Your task to perform on an android device: Open Google Chrome Image 0: 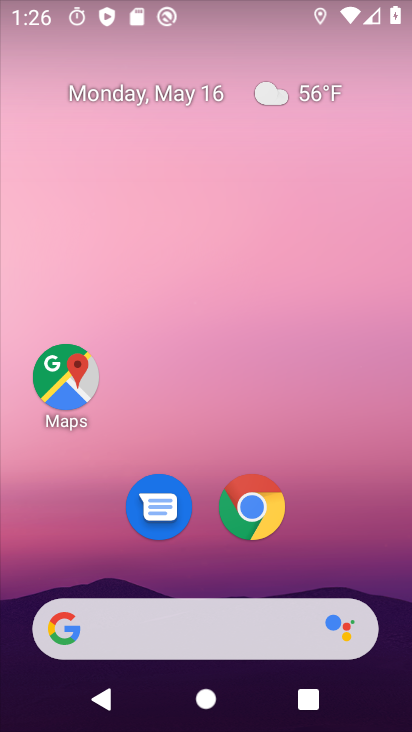
Step 0: click (257, 498)
Your task to perform on an android device: Open Google Chrome Image 1: 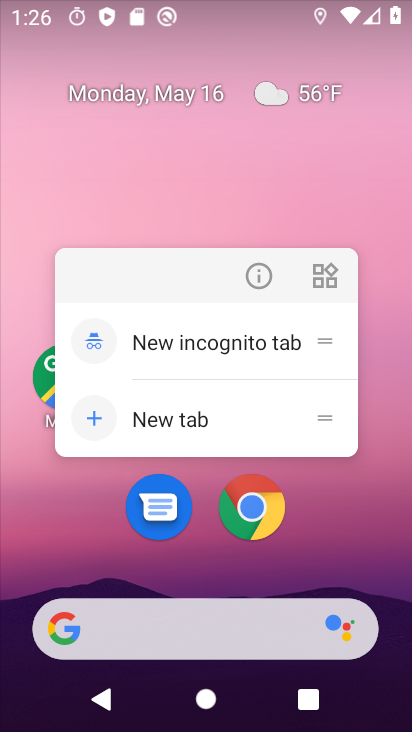
Step 1: click (234, 507)
Your task to perform on an android device: Open Google Chrome Image 2: 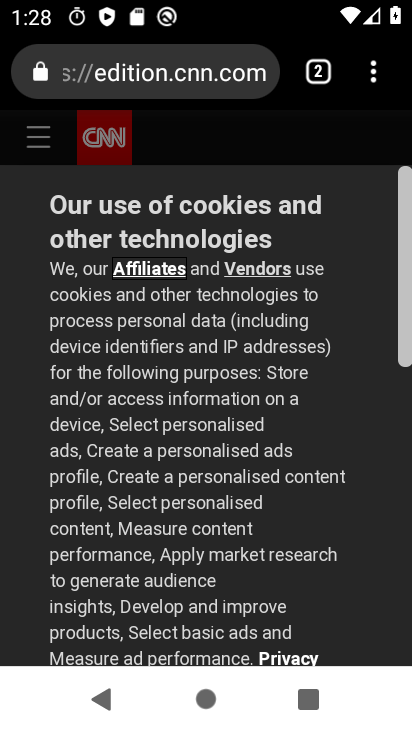
Step 2: task complete